Your task to perform on an android device: set an alarm Image 0: 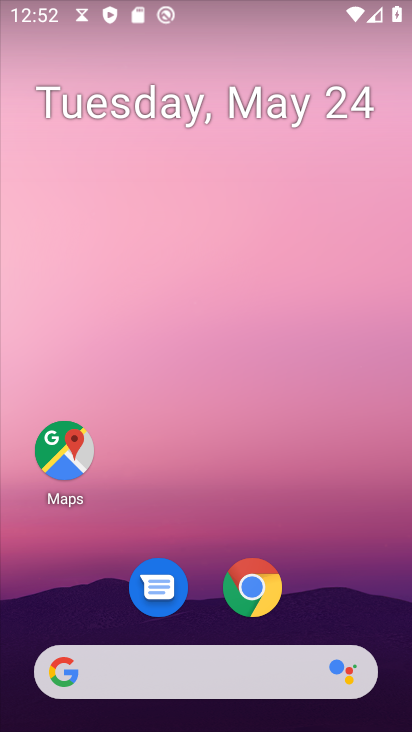
Step 0: drag from (178, 655) to (216, 42)
Your task to perform on an android device: set an alarm Image 1: 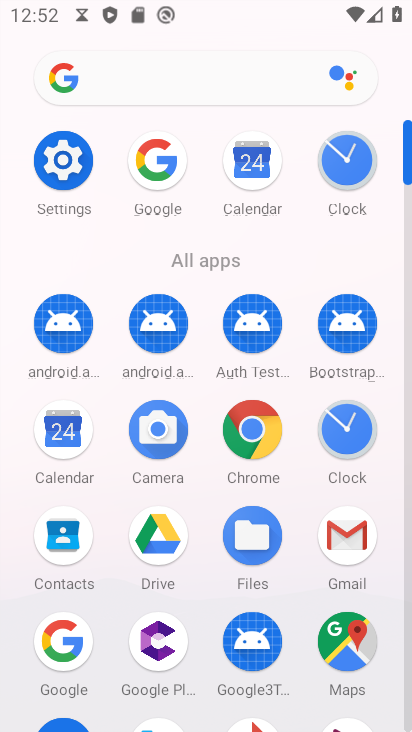
Step 1: click (349, 417)
Your task to perform on an android device: set an alarm Image 2: 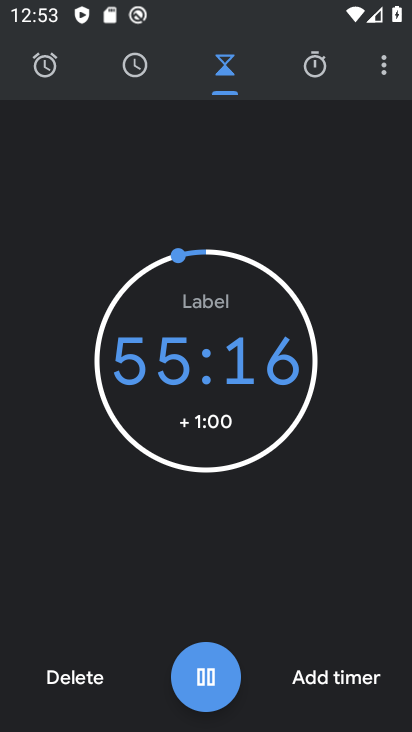
Step 2: click (50, 69)
Your task to perform on an android device: set an alarm Image 3: 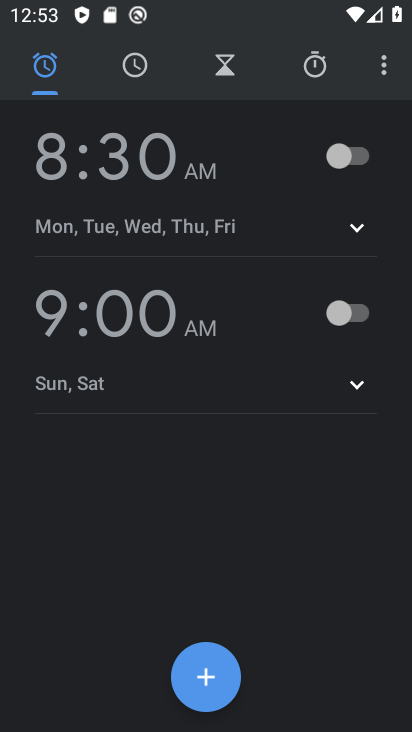
Step 3: click (228, 660)
Your task to perform on an android device: set an alarm Image 4: 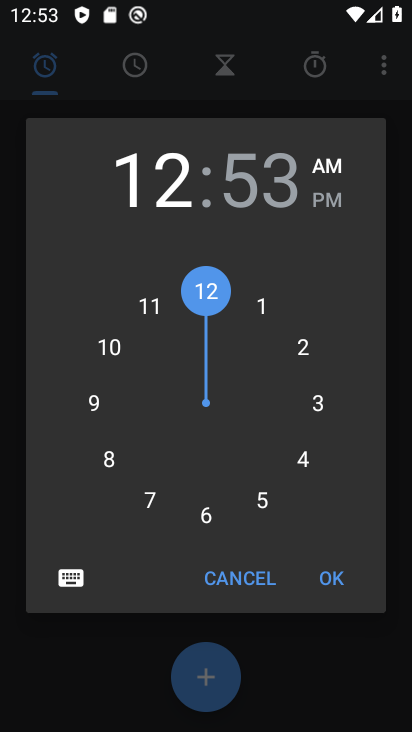
Step 4: click (216, 511)
Your task to perform on an android device: set an alarm Image 5: 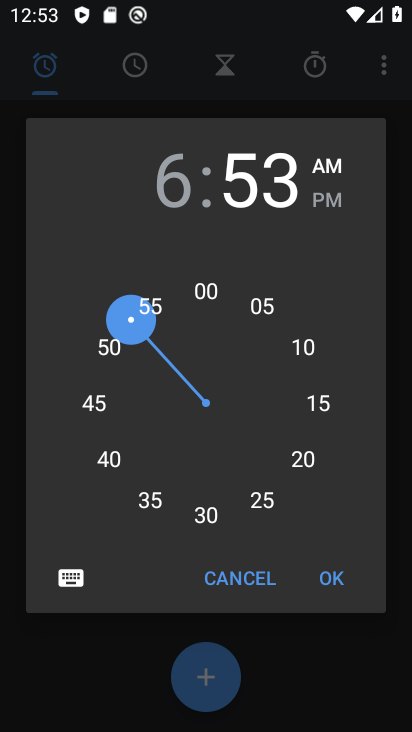
Step 5: click (341, 591)
Your task to perform on an android device: set an alarm Image 6: 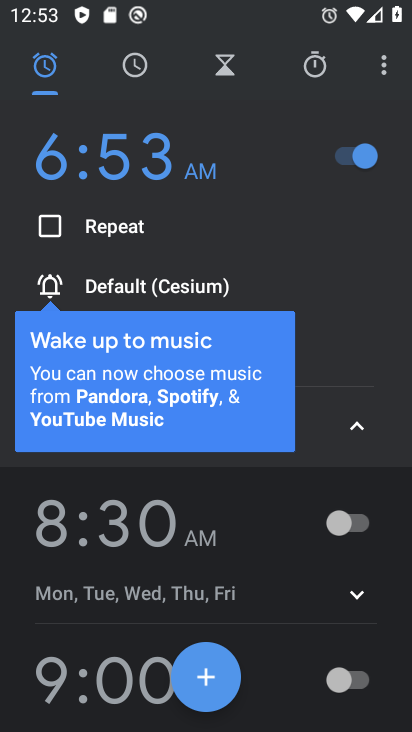
Step 6: task complete